Your task to perform on an android device: Open wifi settings Image 0: 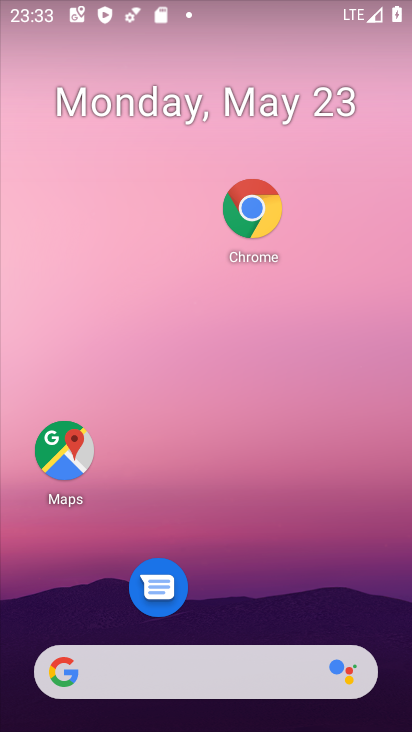
Step 0: drag from (294, 731) to (246, 28)
Your task to perform on an android device: Open wifi settings Image 1: 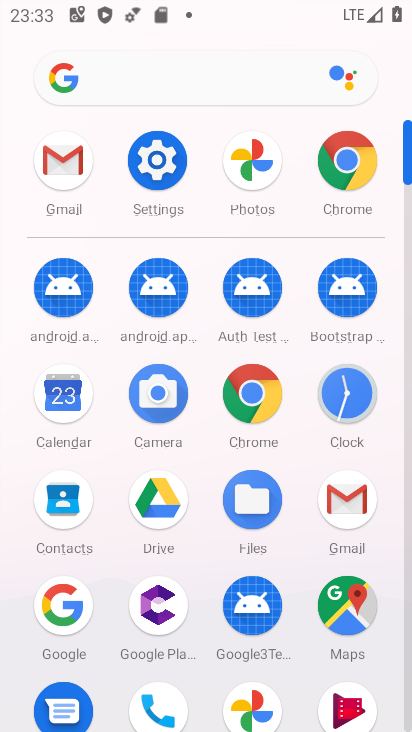
Step 1: click (145, 164)
Your task to perform on an android device: Open wifi settings Image 2: 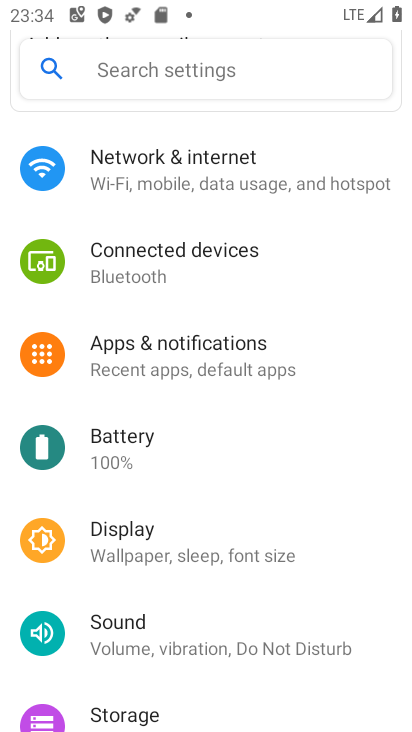
Step 2: click (208, 174)
Your task to perform on an android device: Open wifi settings Image 3: 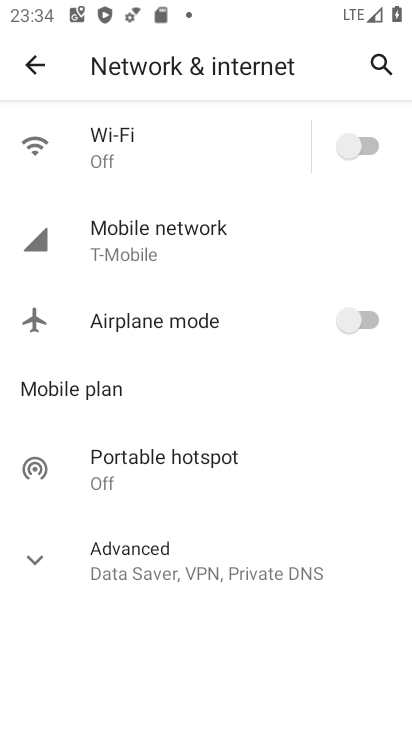
Step 3: click (346, 151)
Your task to perform on an android device: Open wifi settings Image 4: 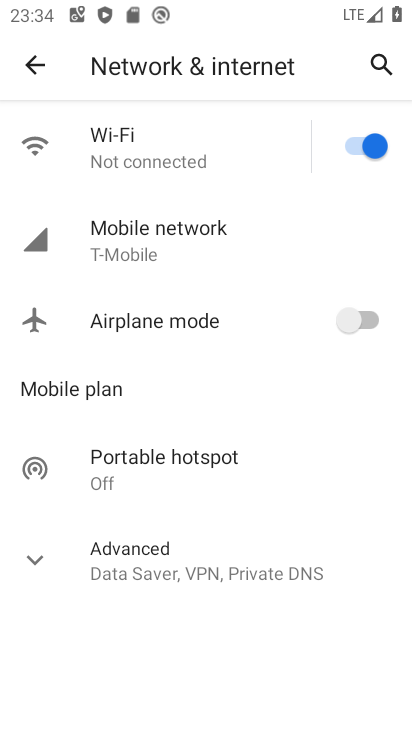
Step 4: task complete